Your task to perform on an android device: set the timer Image 0: 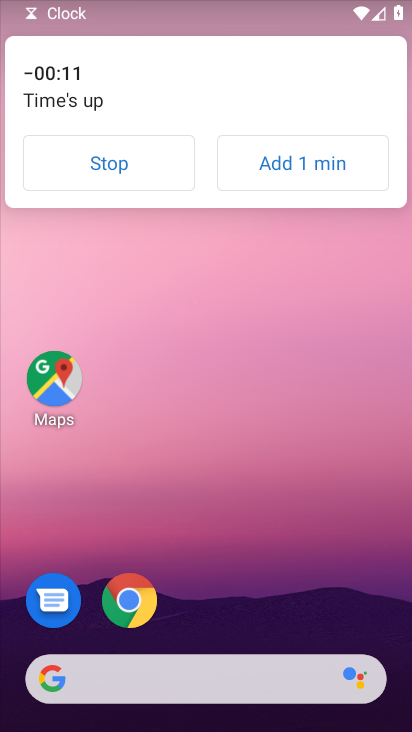
Step 0: click (123, 154)
Your task to perform on an android device: set the timer Image 1: 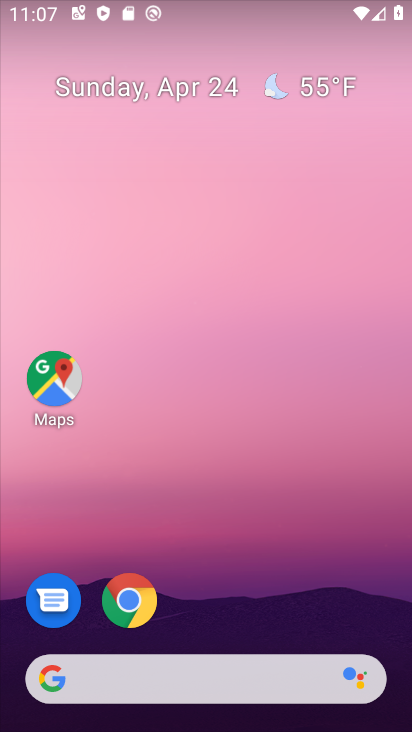
Step 1: drag from (222, 633) to (245, 262)
Your task to perform on an android device: set the timer Image 2: 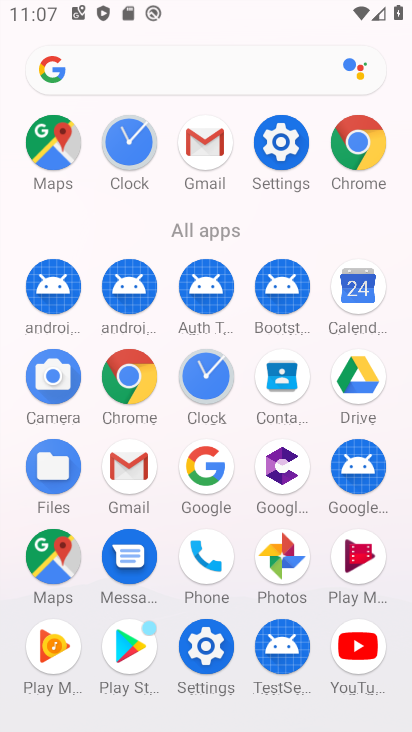
Step 2: click (192, 380)
Your task to perform on an android device: set the timer Image 3: 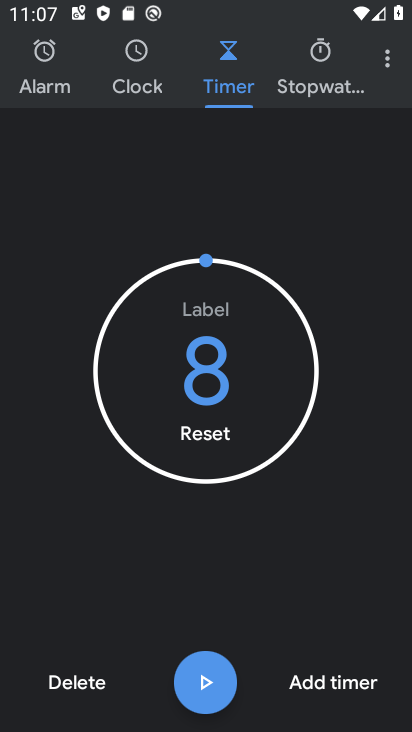
Step 3: click (223, 678)
Your task to perform on an android device: set the timer Image 4: 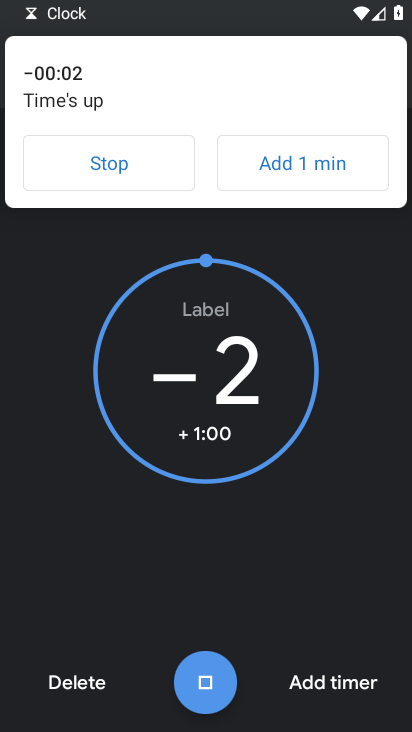
Step 4: click (119, 156)
Your task to perform on an android device: set the timer Image 5: 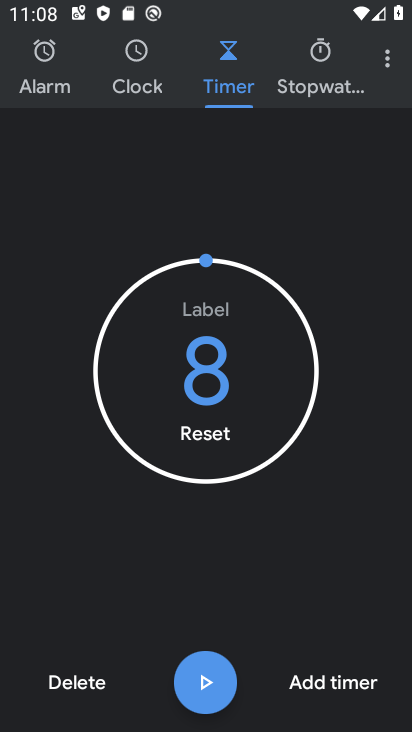
Step 5: task complete